Your task to perform on an android device: check data usage Image 0: 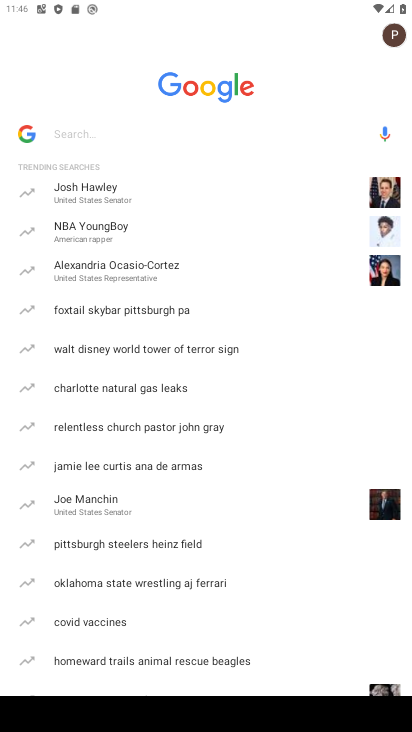
Step 0: press home button
Your task to perform on an android device: check data usage Image 1: 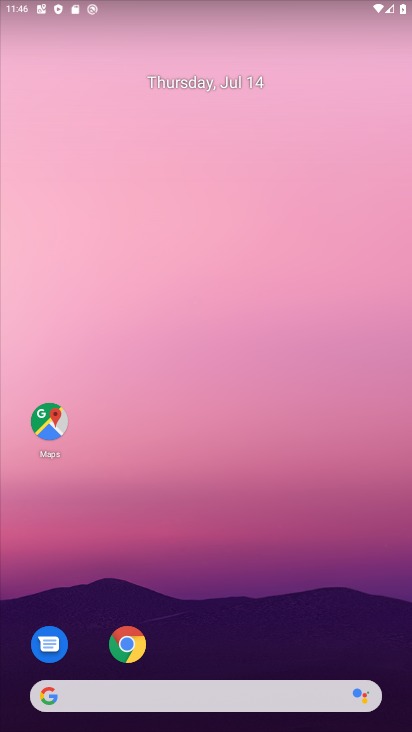
Step 1: drag from (202, 637) to (285, 169)
Your task to perform on an android device: check data usage Image 2: 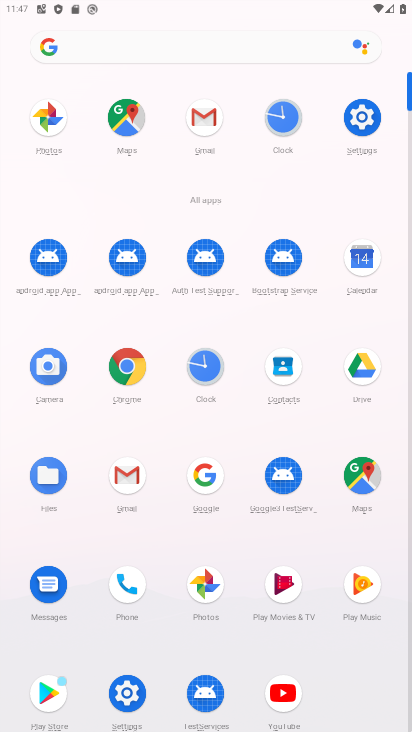
Step 2: click (127, 709)
Your task to perform on an android device: check data usage Image 3: 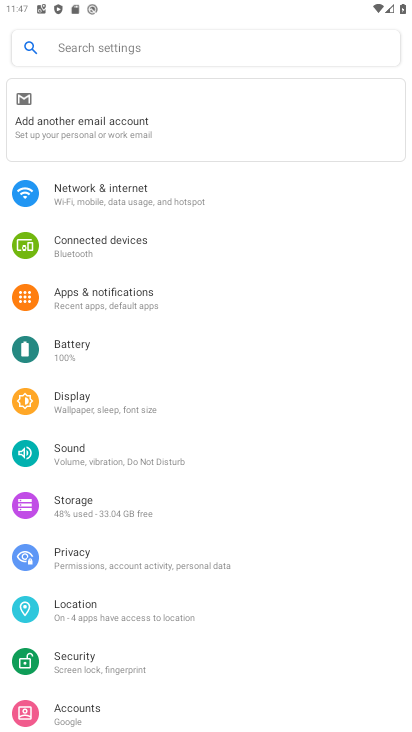
Step 3: click (162, 211)
Your task to perform on an android device: check data usage Image 4: 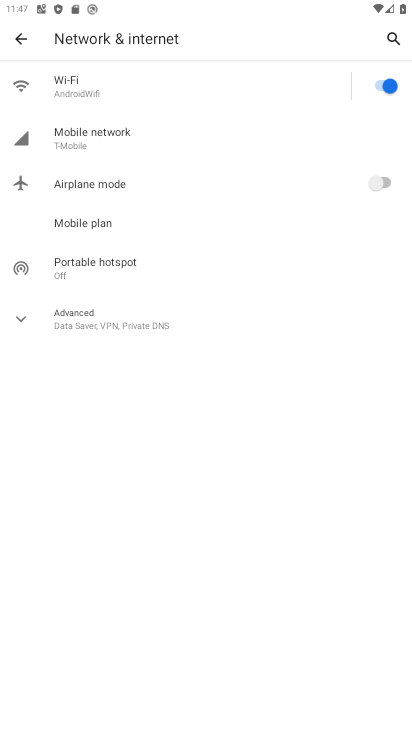
Step 4: click (137, 137)
Your task to perform on an android device: check data usage Image 5: 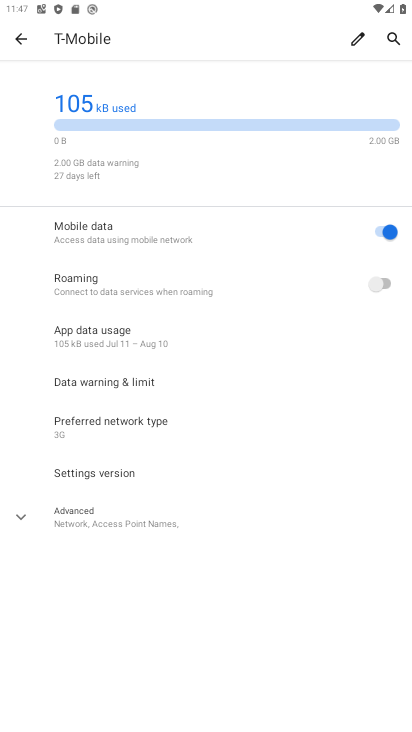
Step 5: click (168, 341)
Your task to perform on an android device: check data usage Image 6: 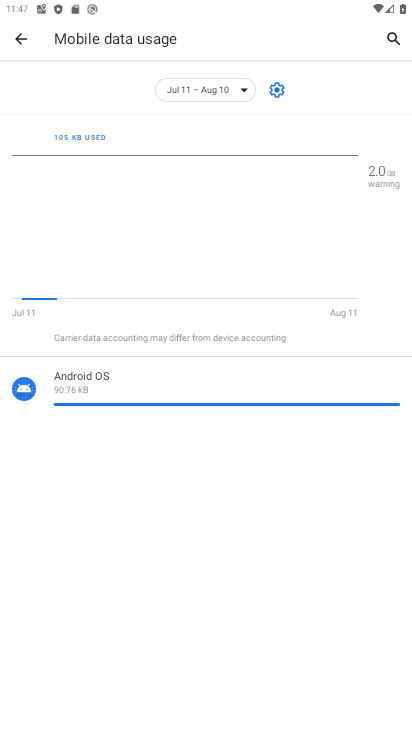
Step 6: task complete